Your task to perform on an android device: toggle location history Image 0: 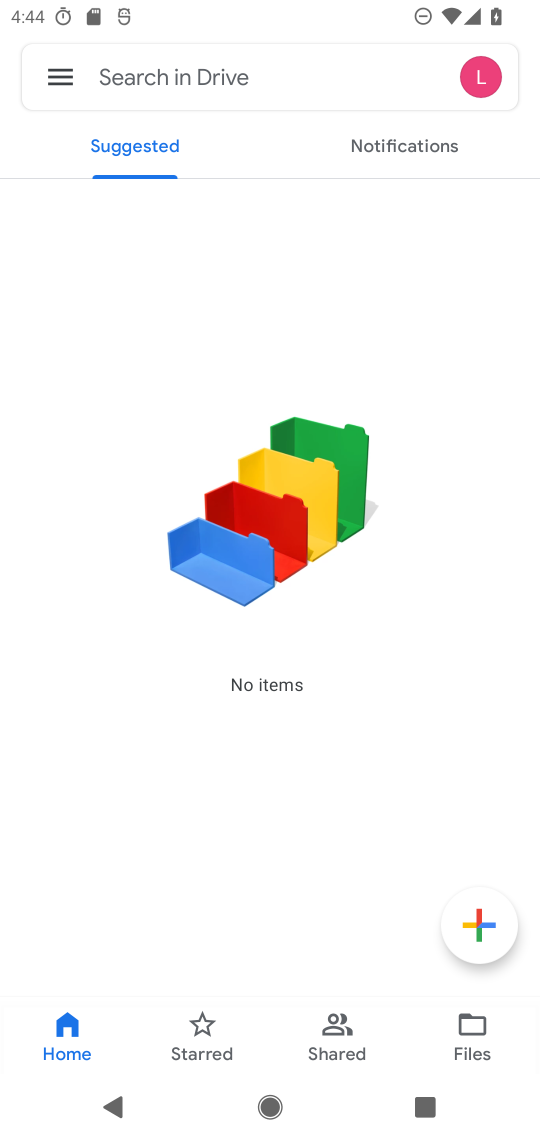
Step 0: press home button
Your task to perform on an android device: toggle location history Image 1: 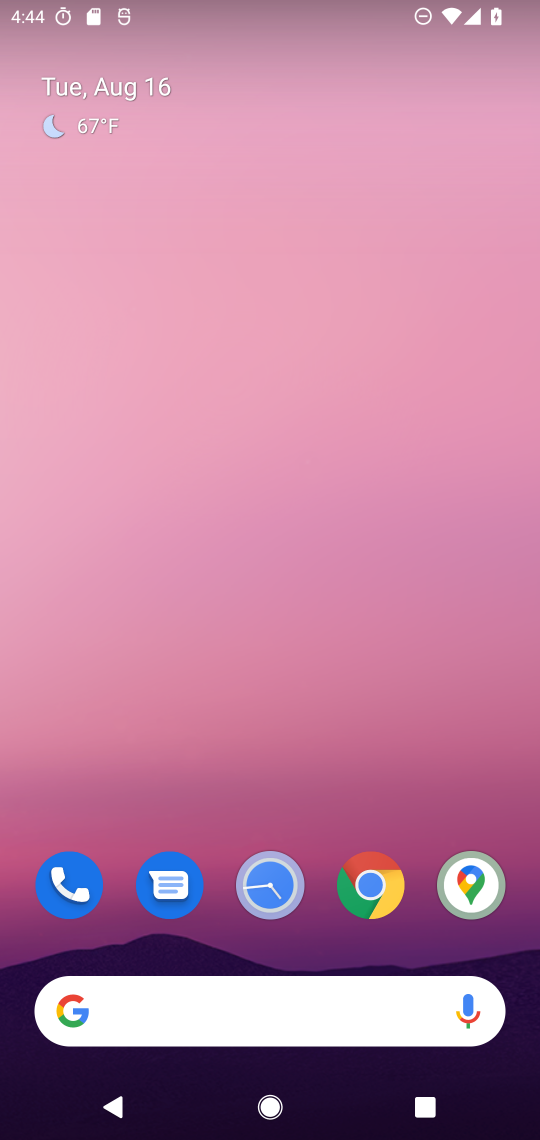
Step 1: drag from (187, 252) to (185, 44)
Your task to perform on an android device: toggle location history Image 2: 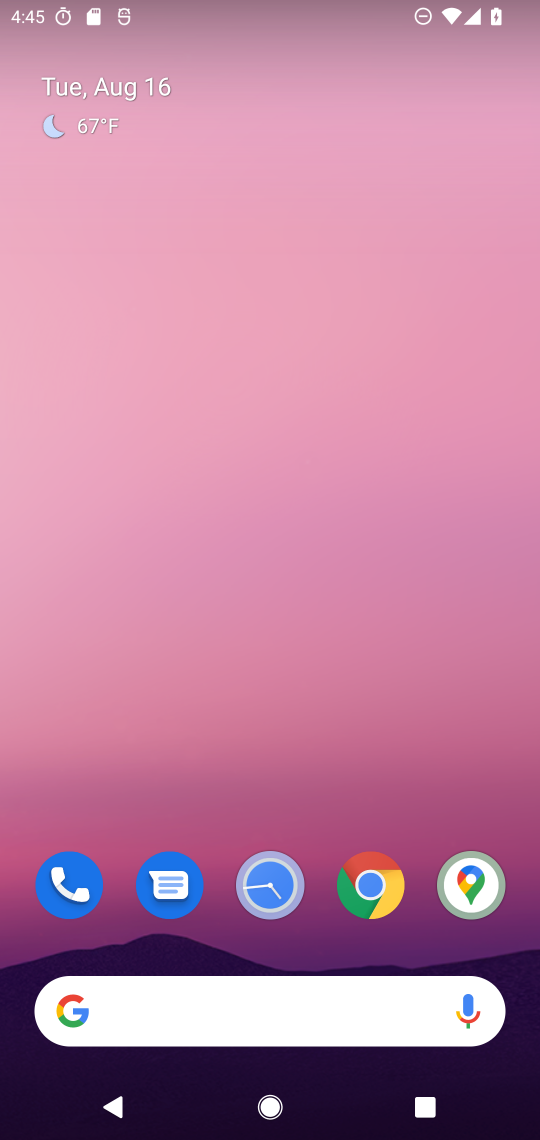
Step 2: drag from (227, 805) to (223, 257)
Your task to perform on an android device: toggle location history Image 3: 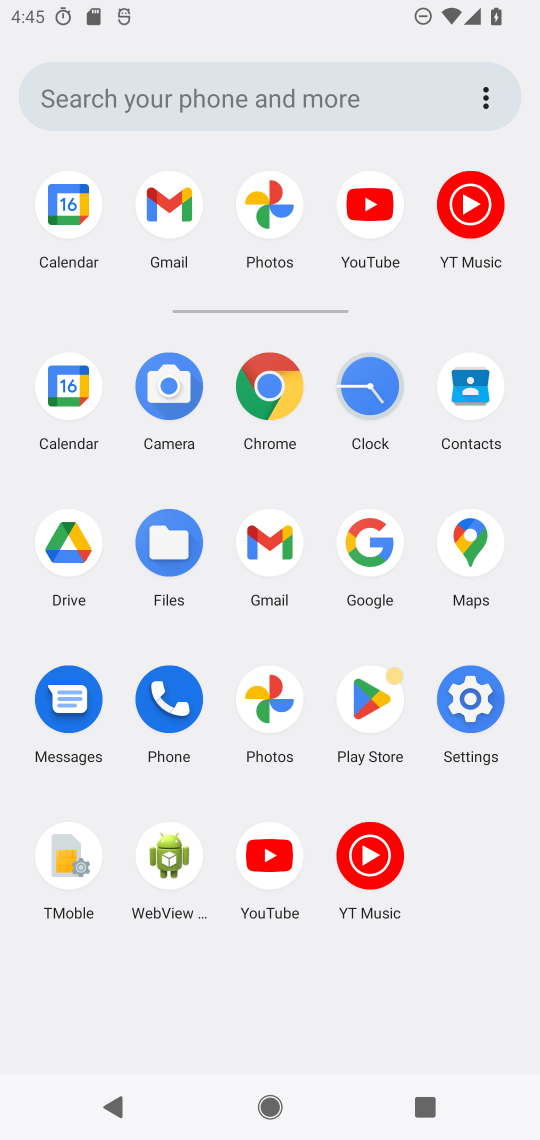
Step 3: click (469, 690)
Your task to perform on an android device: toggle location history Image 4: 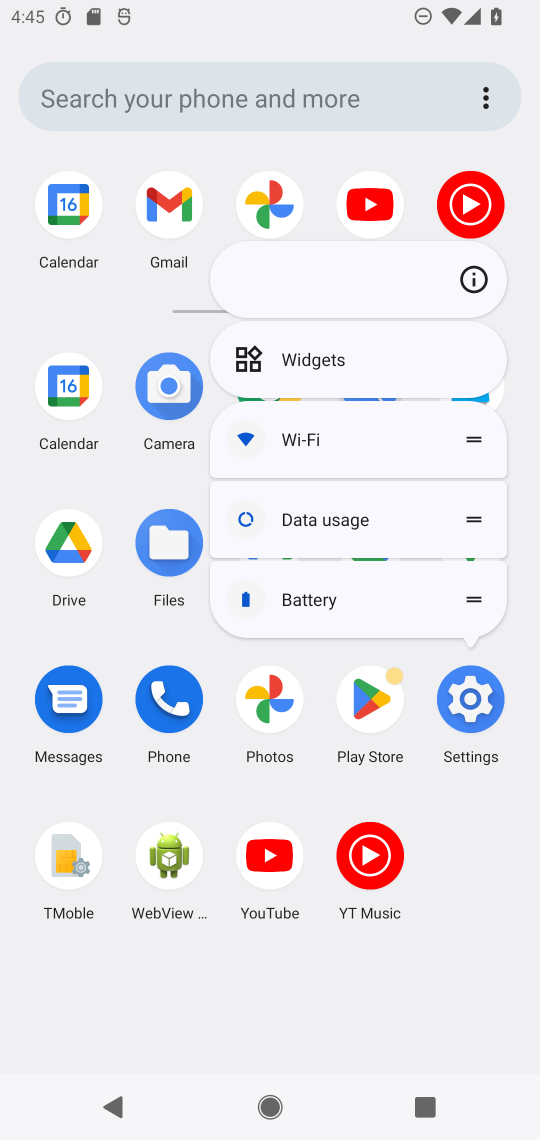
Step 4: click (469, 690)
Your task to perform on an android device: toggle location history Image 5: 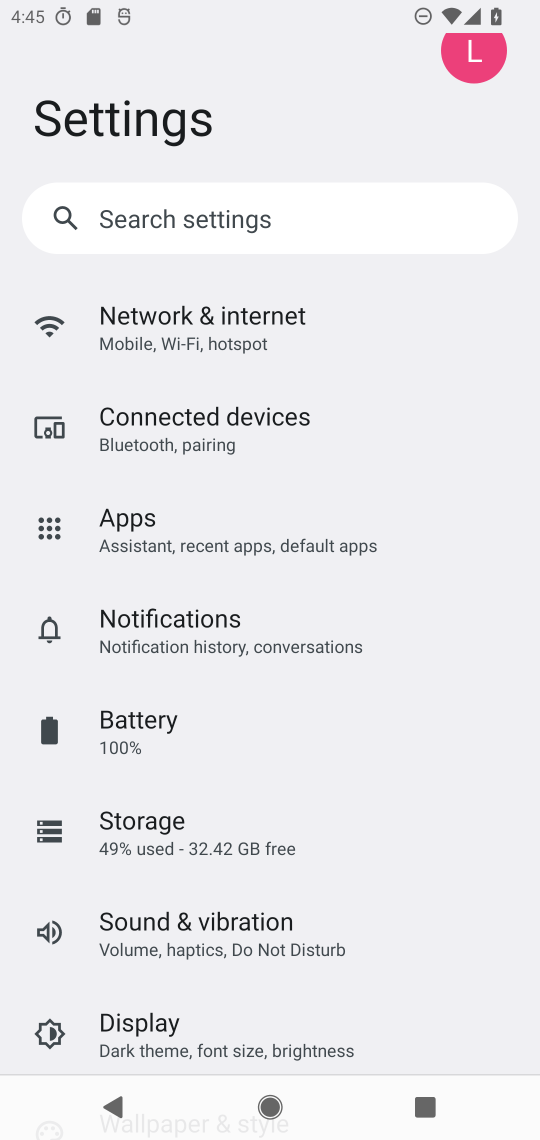
Step 5: drag from (231, 934) to (213, 286)
Your task to perform on an android device: toggle location history Image 6: 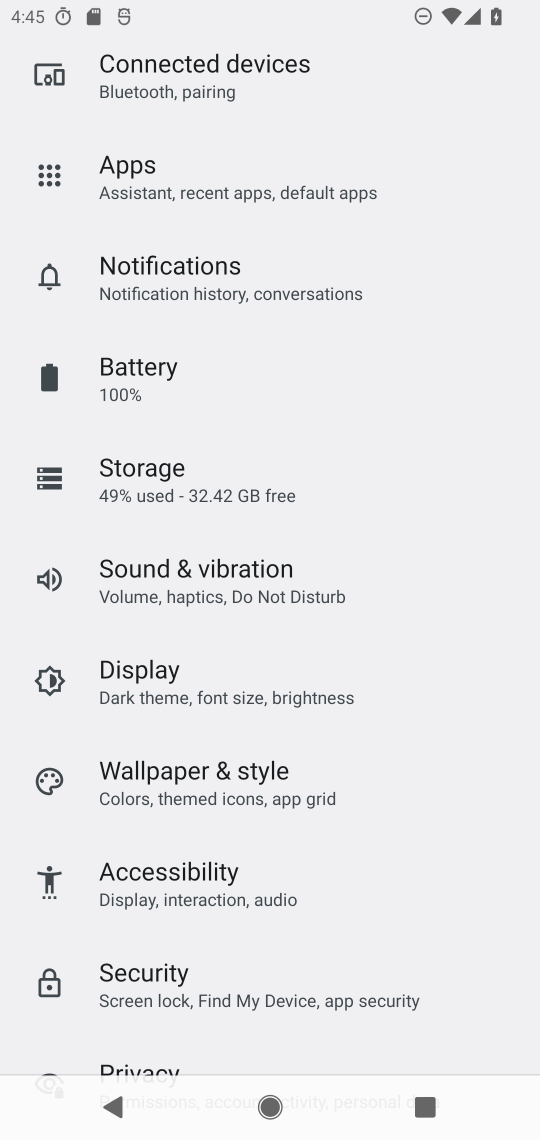
Step 6: drag from (164, 1025) to (219, 259)
Your task to perform on an android device: toggle location history Image 7: 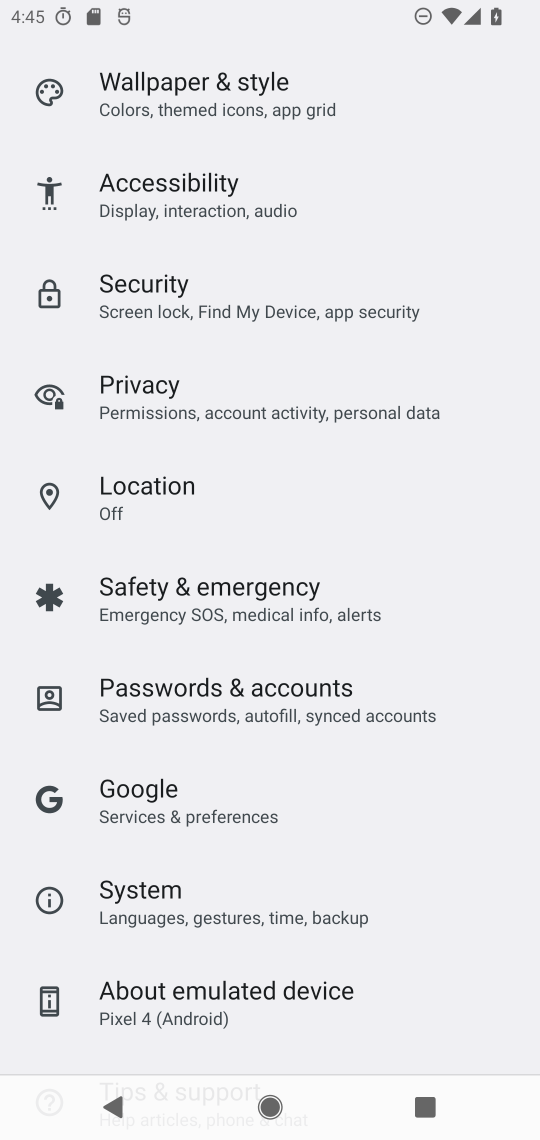
Step 7: click (173, 482)
Your task to perform on an android device: toggle location history Image 8: 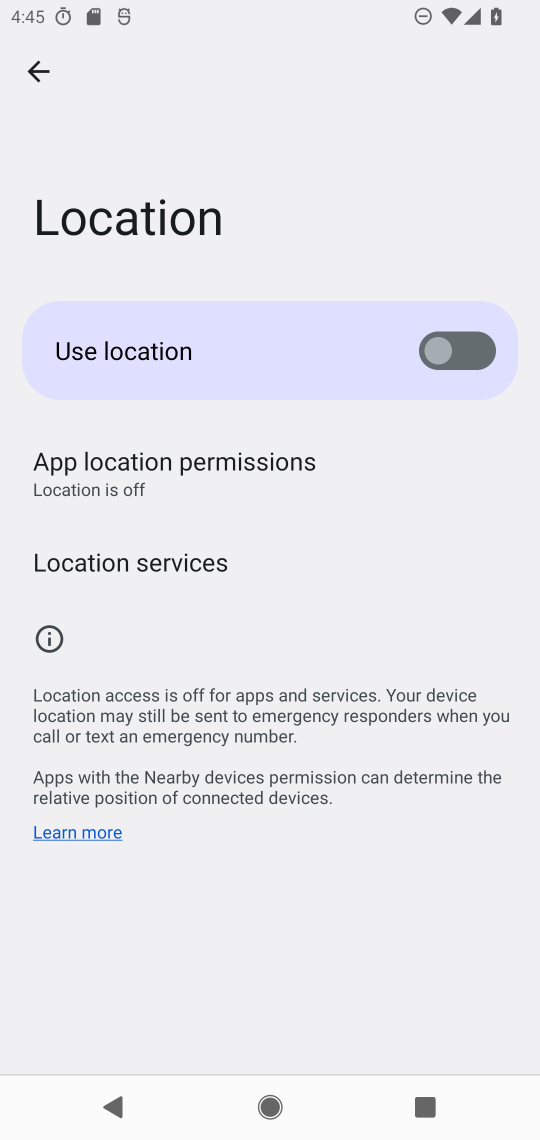
Step 8: click (133, 557)
Your task to perform on an android device: toggle location history Image 9: 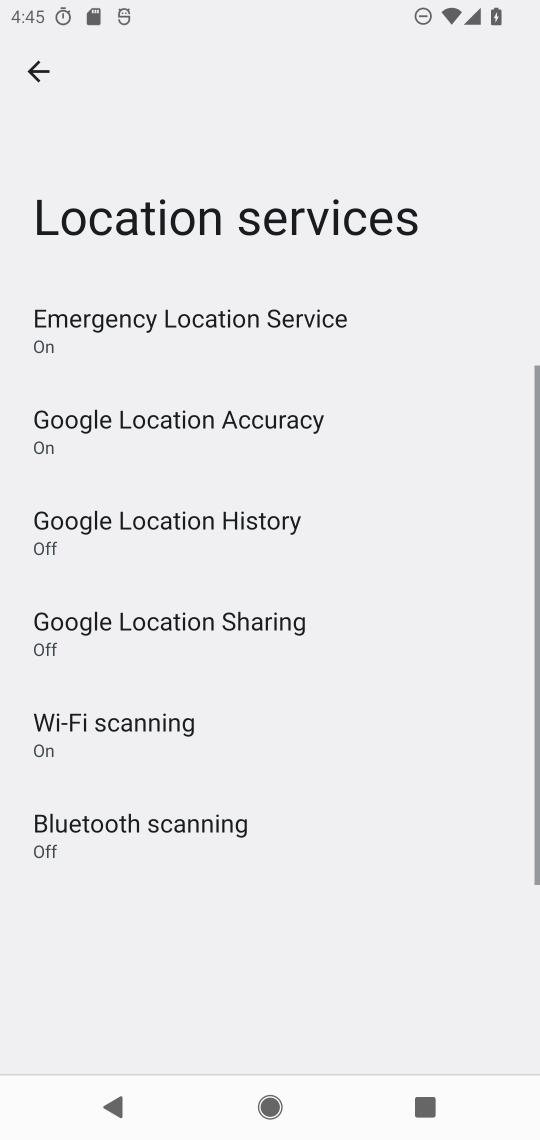
Step 9: click (150, 511)
Your task to perform on an android device: toggle location history Image 10: 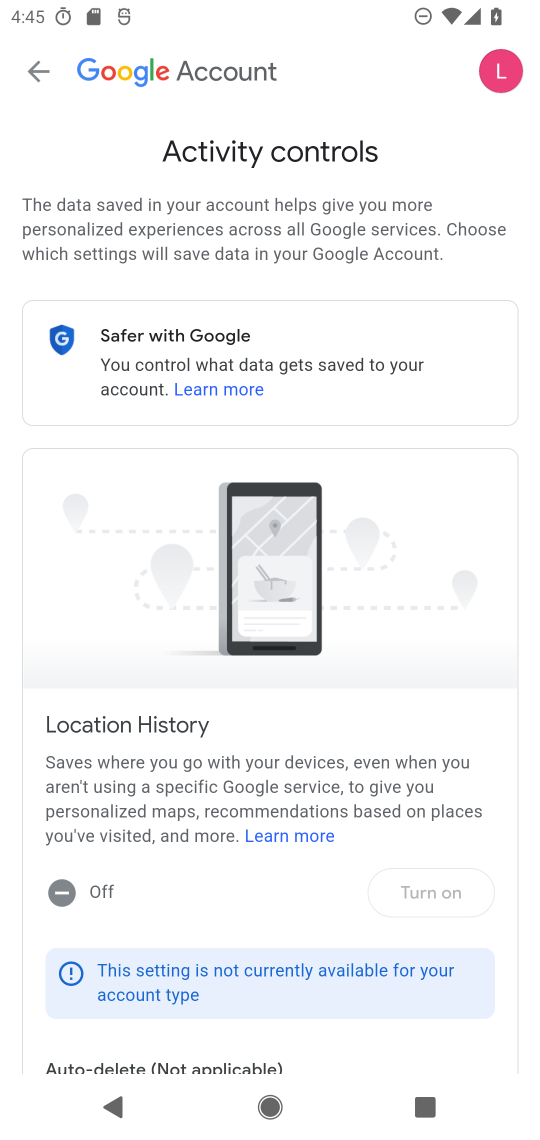
Step 10: click (92, 874)
Your task to perform on an android device: toggle location history Image 11: 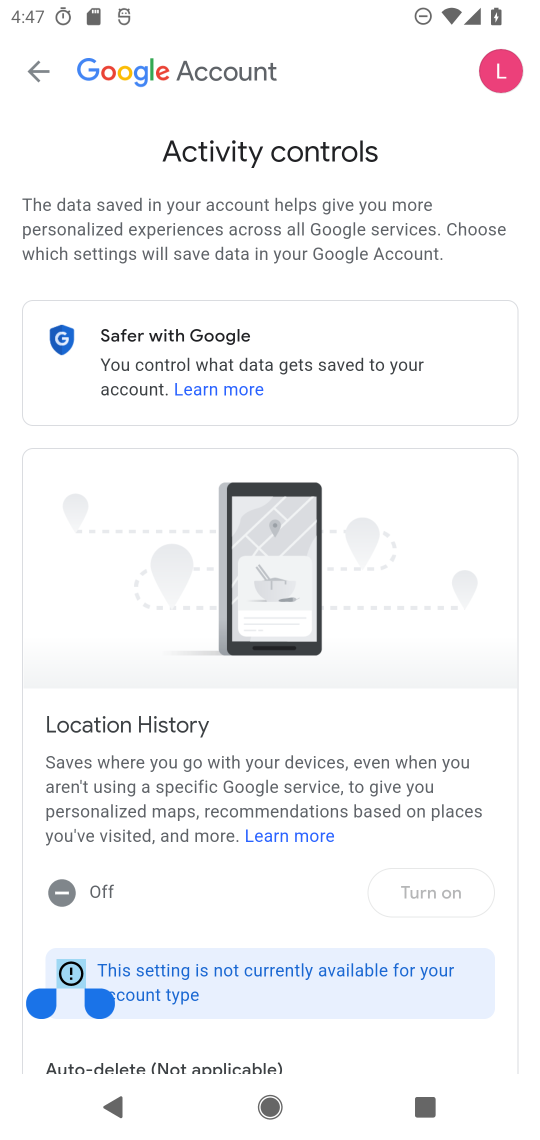
Step 11: click (425, 895)
Your task to perform on an android device: toggle location history Image 12: 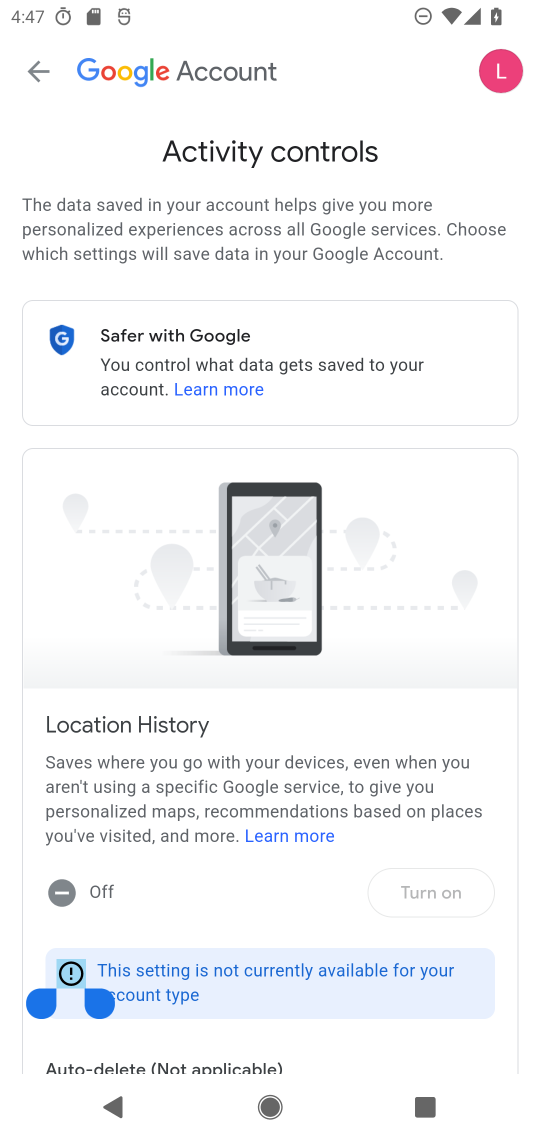
Step 12: click (425, 895)
Your task to perform on an android device: toggle location history Image 13: 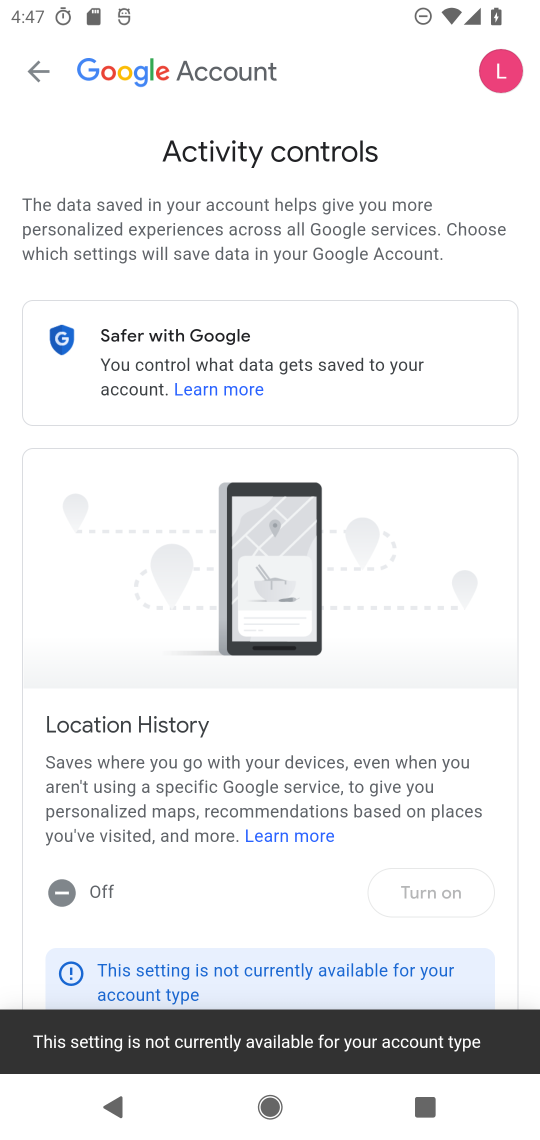
Step 13: task complete